Your task to perform on an android device: Check the weather Image 0: 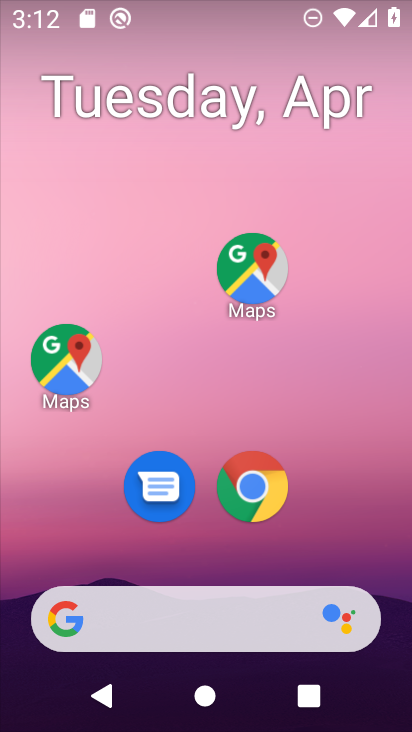
Step 0: click (271, 506)
Your task to perform on an android device: Check the weather Image 1: 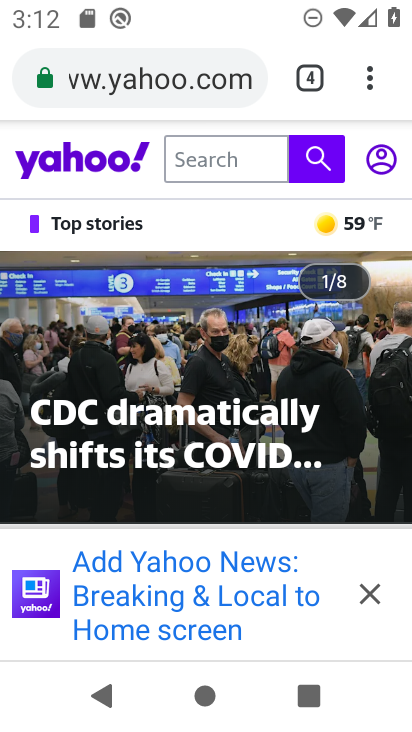
Step 1: click (307, 78)
Your task to perform on an android device: Check the weather Image 2: 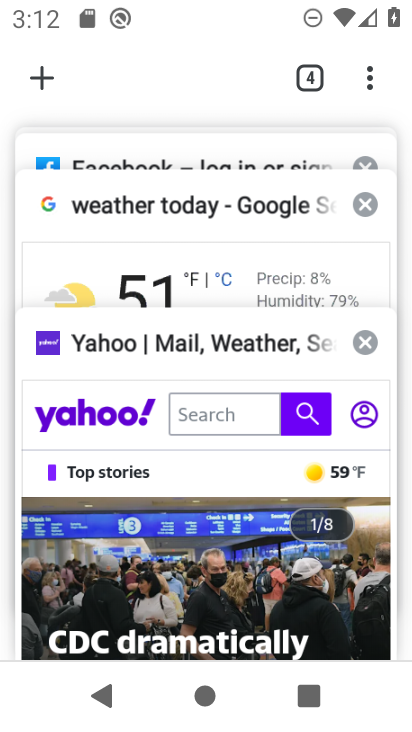
Step 2: click (39, 83)
Your task to perform on an android device: Check the weather Image 3: 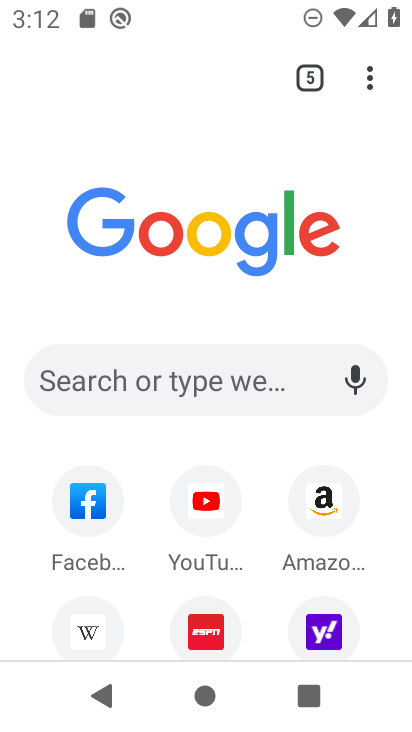
Step 3: click (162, 396)
Your task to perform on an android device: Check the weather Image 4: 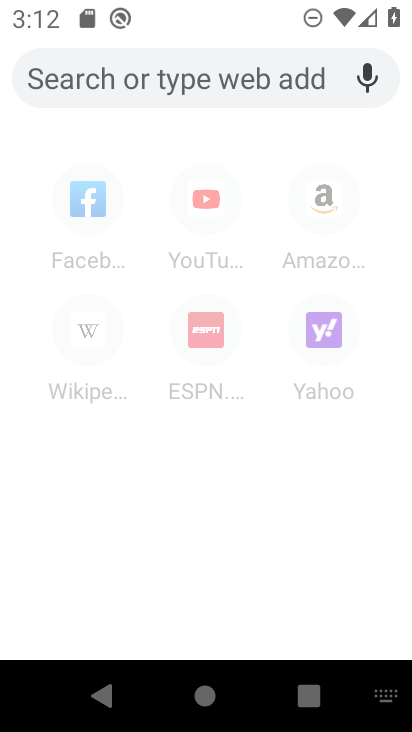
Step 4: type "weather"
Your task to perform on an android device: Check the weather Image 5: 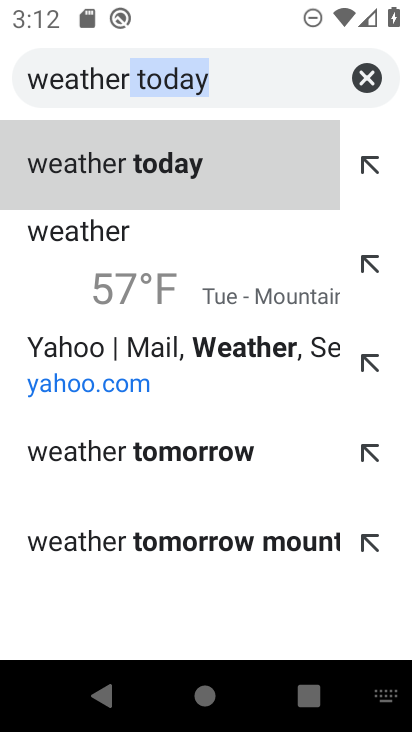
Step 5: type ""
Your task to perform on an android device: Check the weather Image 6: 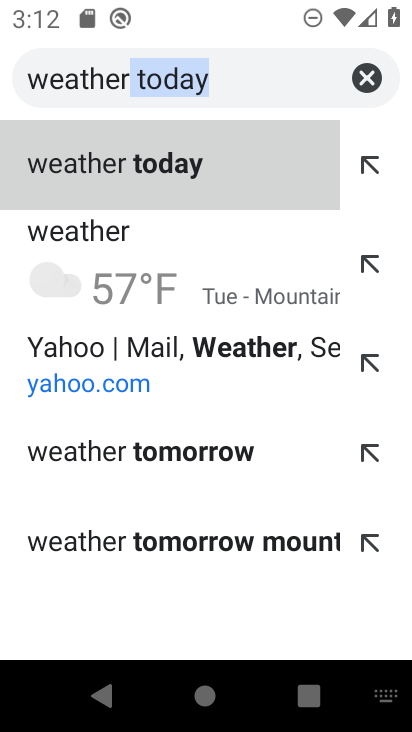
Step 6: drag from (195, 182) to (281, 278)
Your task to perform on an android device: Check the weather Image 7: 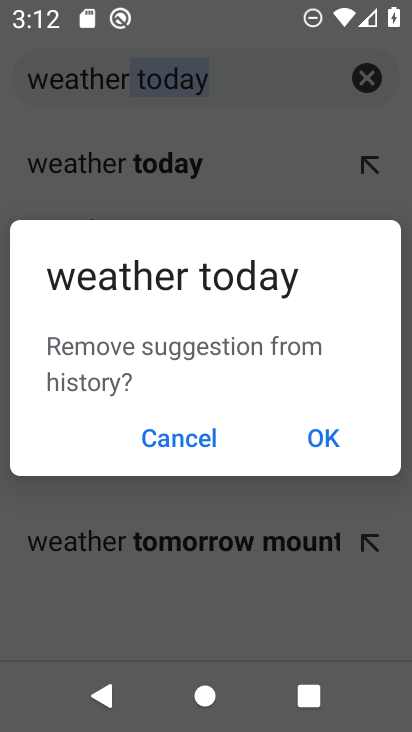
Step 7: click (195, 447)
Your task to perform on an android device: Check the weather Image 8: 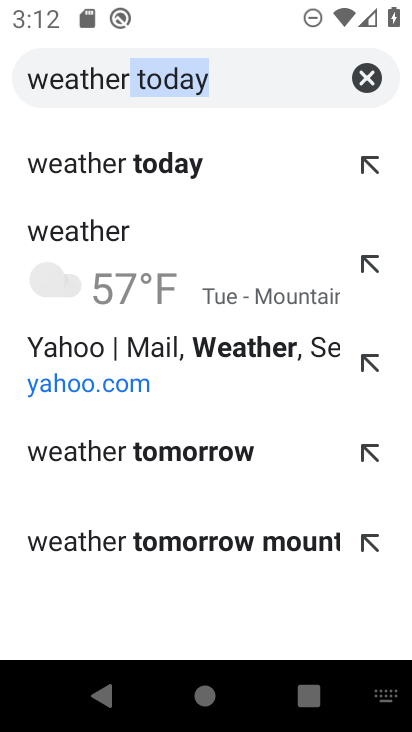
Step 8: click (197, 304)
Your task to perform on an android device: Check the weather Image 9: 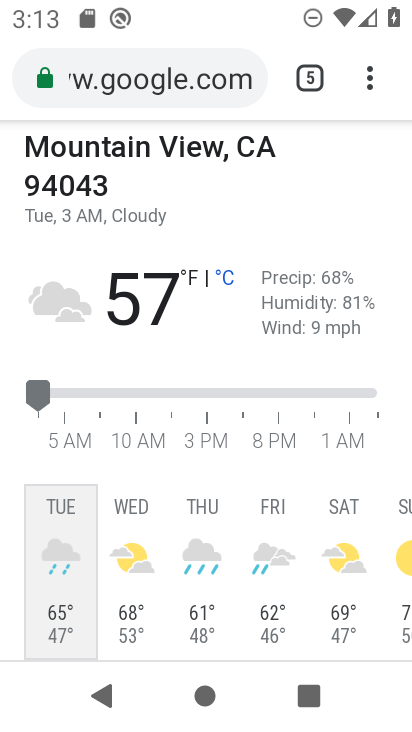
Step 9: task complete